Your task to perform on an android device: What is the news today? Image 0: 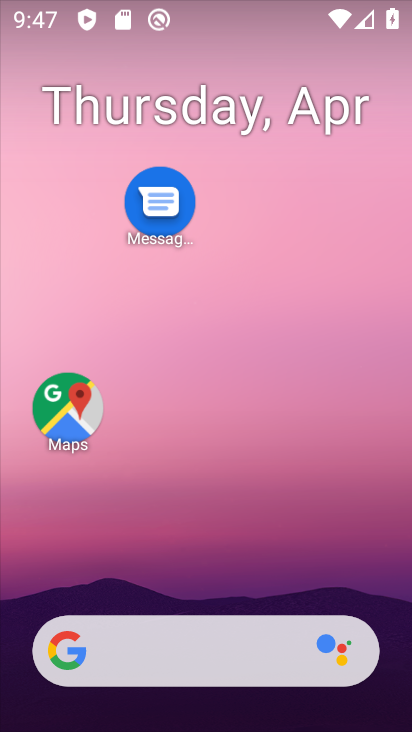
Step 0: drag from (196, 520) to (196, 72)
Your task to perform on an android device: What is the news today? Image 1: 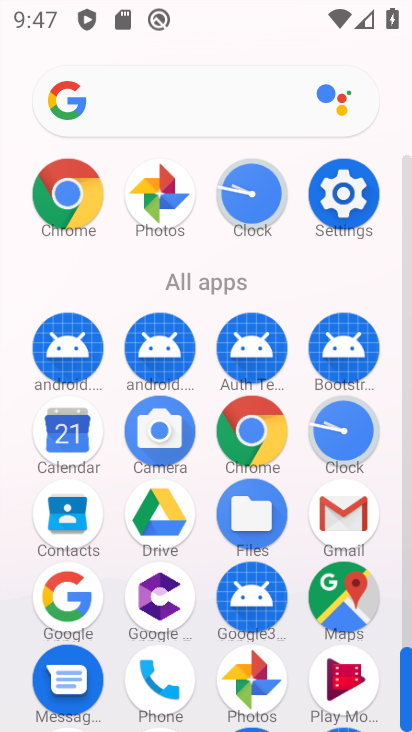
Step 1: click (57, 599)
Your task to perform on an android device: What is the news today? Image 2: 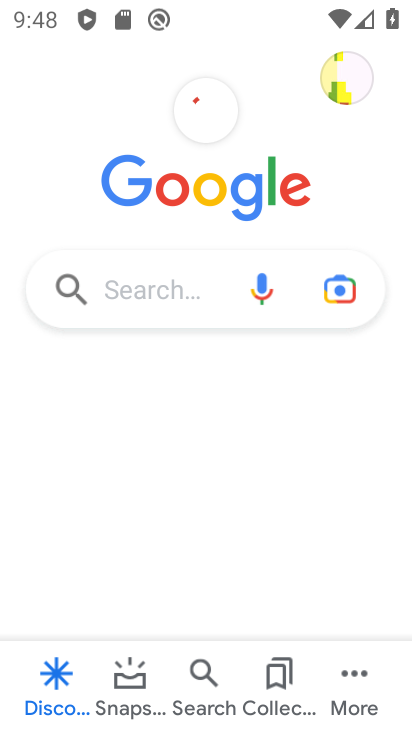
Step 2: click (178, 306)
Your task to perform on an android device: What is the news today? Image 3: 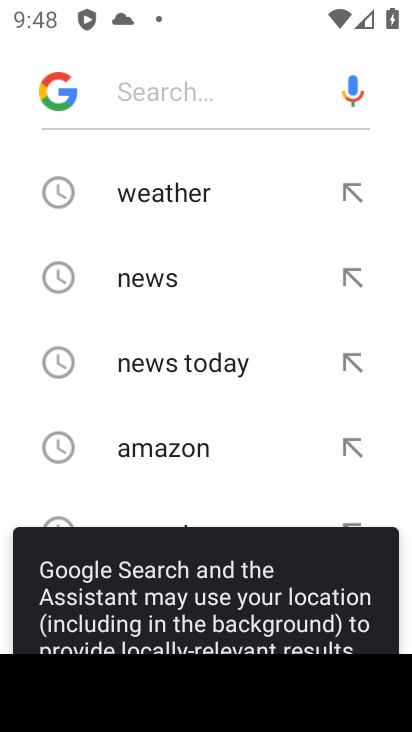
Step 3: click (167, 282)
Your task to perform on an android device: What is the news today? Image 4: 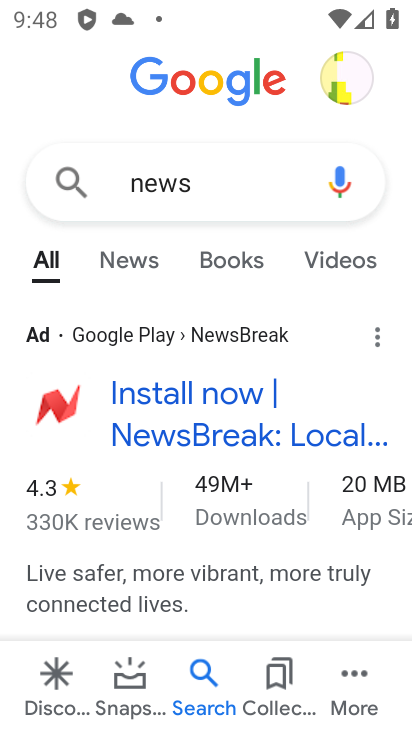
Step 4: click (122, 254)
Your task to perform on an android device: What is the news today? Image 5: 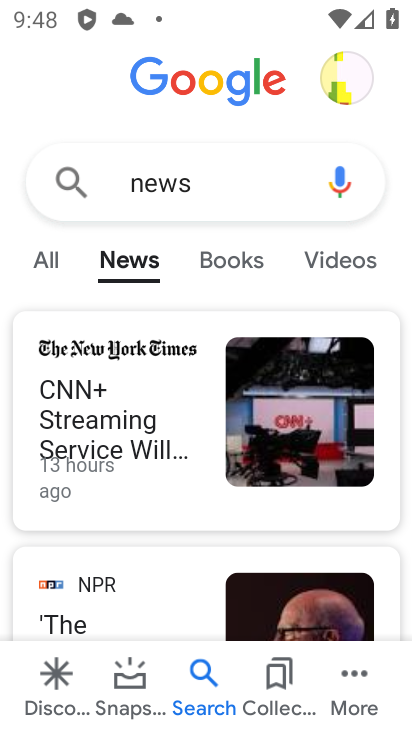
Step 5: task complete